Your task to perform on an android device: Turn on the flashlight Image 0: 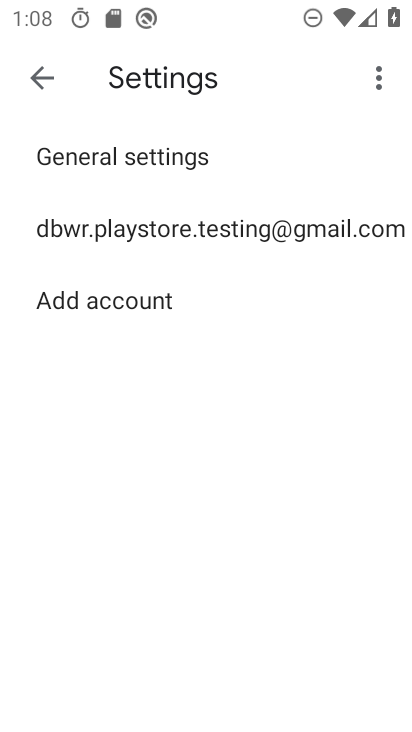
Step 0: press home button
Your task to perform on an android device: Turn on the flashlight Image 1: 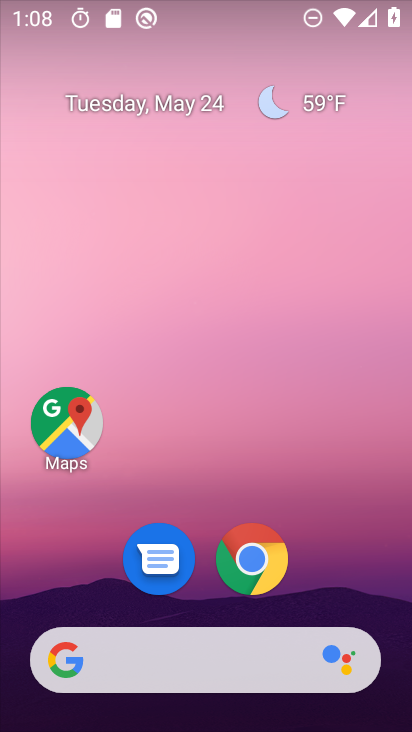
Step 1: drag from (392, 642) to (331, 101)
Your task to perform on an android device: Turn on the flashlight Image 2: 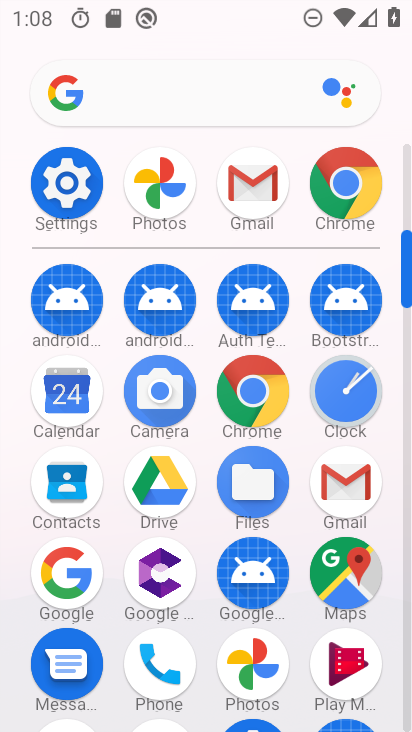
Step 2: click (61, 189)
Your task to perform on an android device: Turn on the flashlight Image 3: 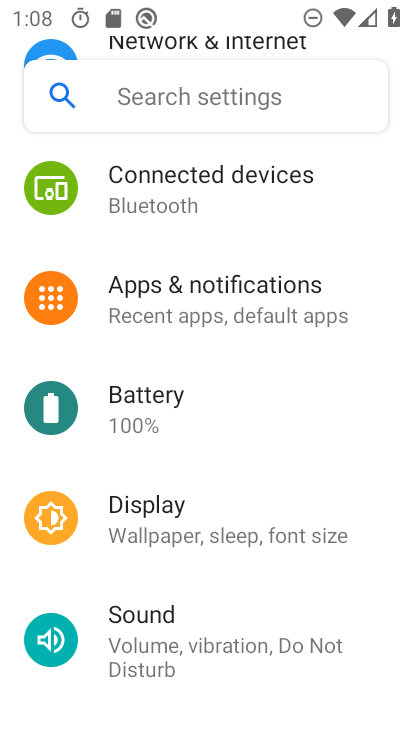
Step 3: drag from (326, 147) to (360, 354)
Your task to perform on an android device: Turn on the flashlight Image 4: 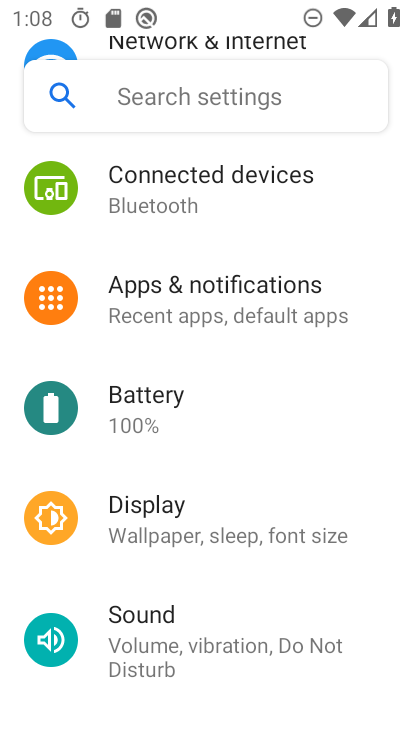
Step 4: click (132, 523)
Your task to perform on an android device: Turn on the flashlight Image 5: 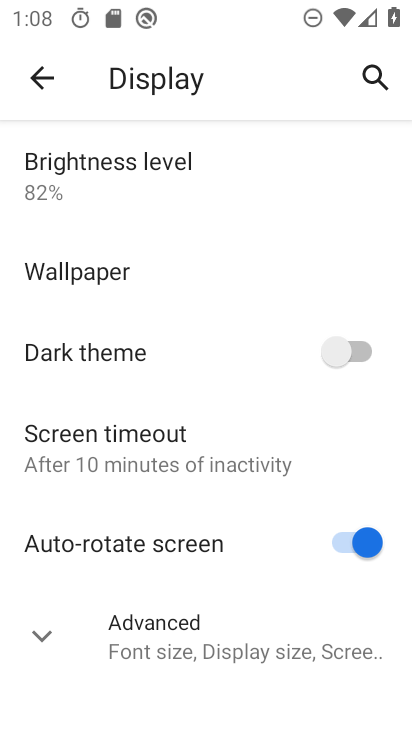
Step 5: drag from (236, 641) to (206, 203)
Your task to perform on an android device: Turn on the flashlight Image 6: 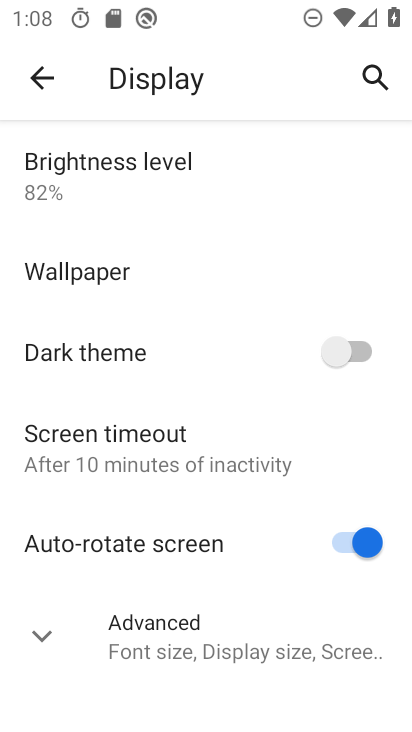
Step 6: drag from (216, 229) to (271, 641)
Your task to perform on an android device: Turn on the flashlight Image 7: 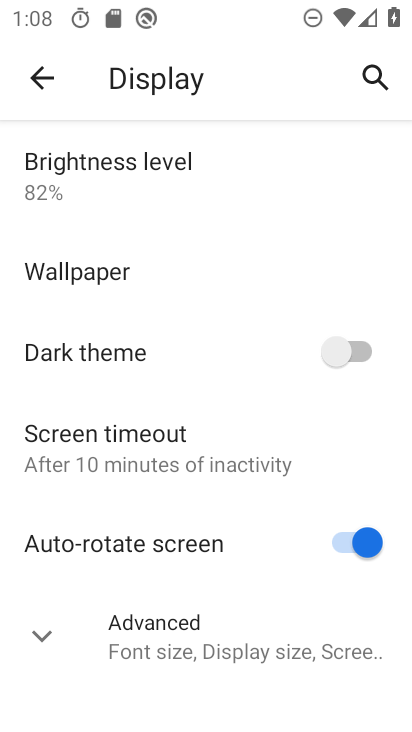
Step 7: click (38, 629)
Your task to perform on an android device: Turn on the flashlight Image 8: 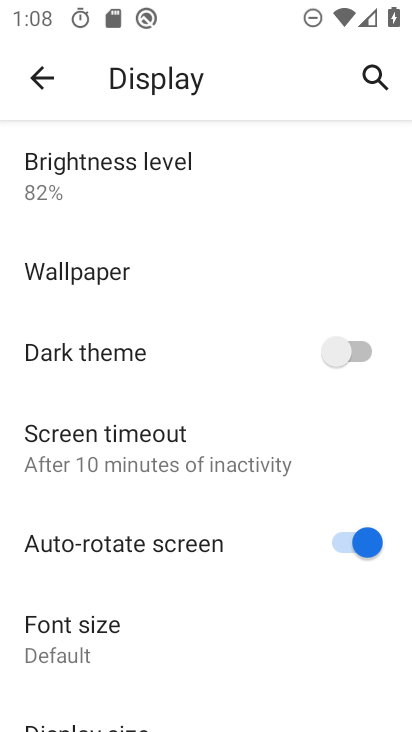
Step 8: task complete